Your task to perform on an android device: show emergency info Image 0: 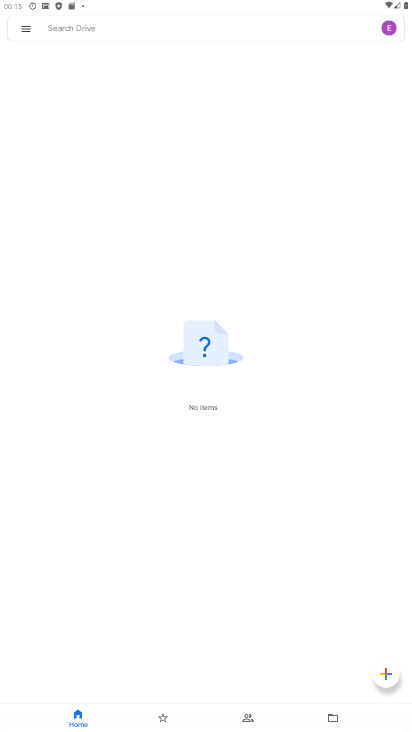
Step 0: press home button
Your task to perform on an android device: show emergency info Image 1: 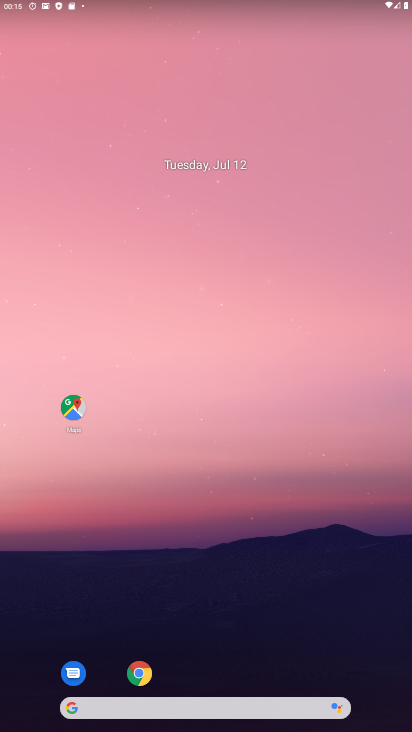
Step 1: press home button
Your task to perform on an android device: show emergency info Image 2: 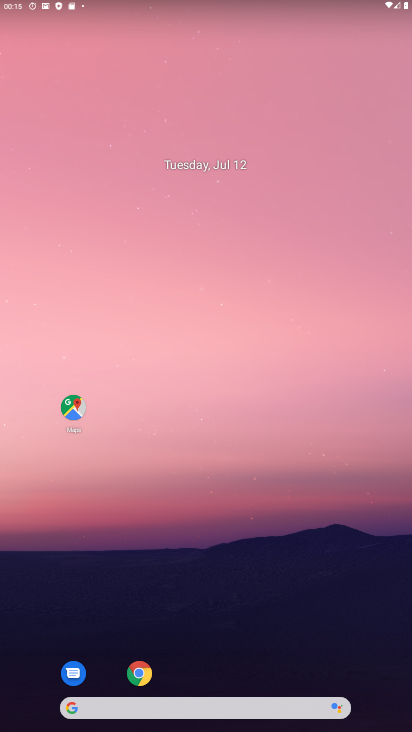
Step 2: drag from (243, 609) to (229, 107)
Your task to perform on an android device: show emergency info Image 3: 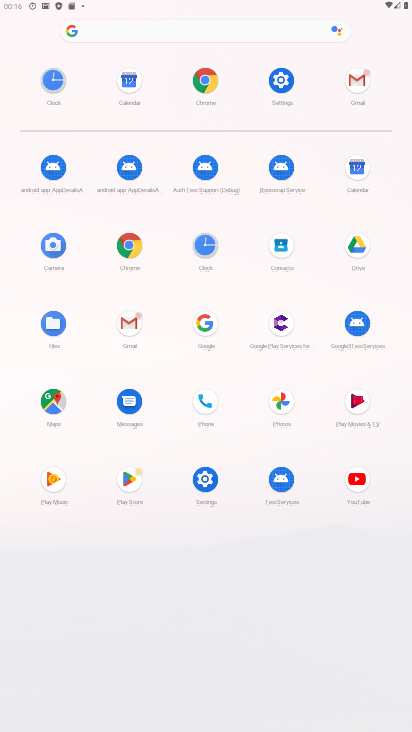
Step 3: click (283, 81)
Your task to perform on an android device: show emergency info Image 4: 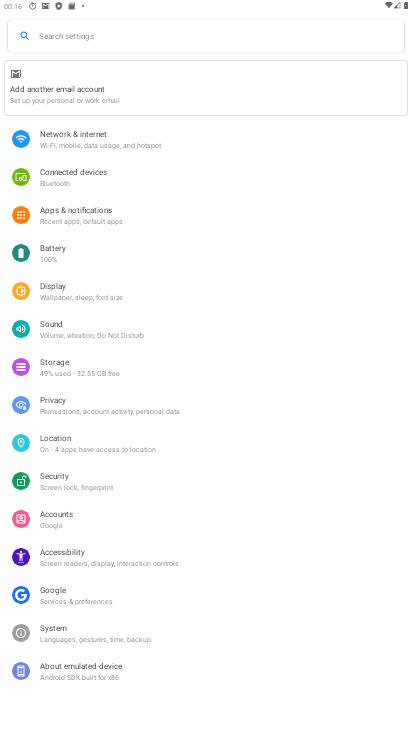
Step 4: click (76, 668)
Your task to perform on an android device: show emergency info Image 5: 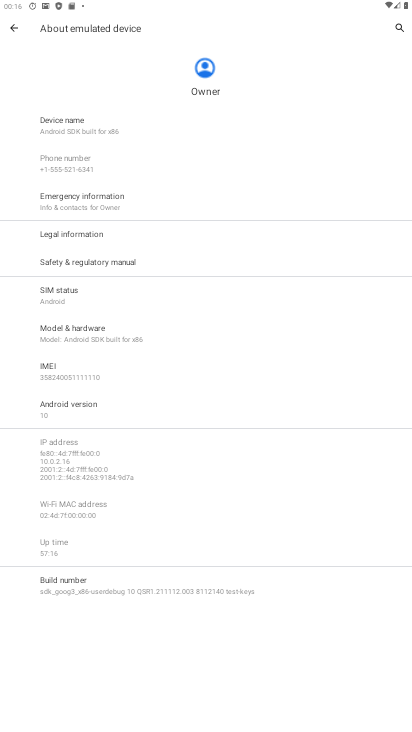
Step 5: click (83, 189)
Your task to perform on an android device: show emergency info Image 6: 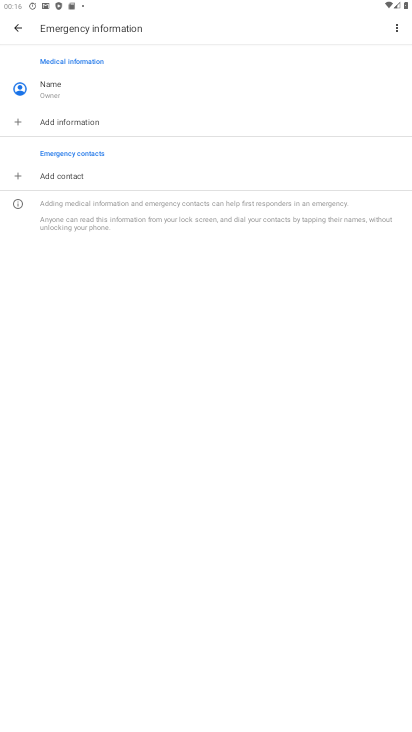
Step 6: task complete